Your task to perform on an android device: manage bookmarks in the chrome app Image 0: 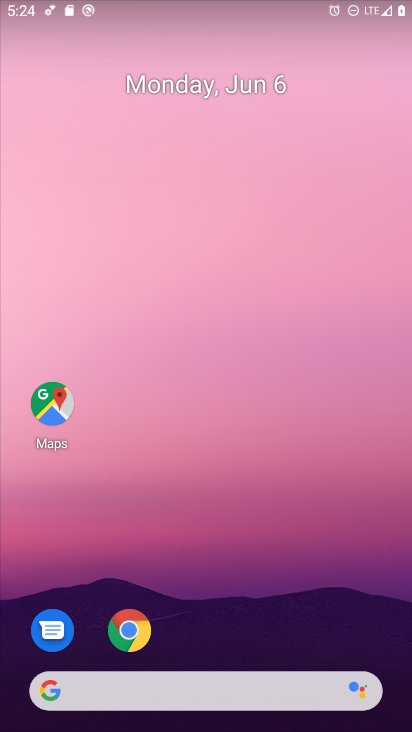
Step 0: click (127, 638)
Your task to perform on an android device: manage bookmarks in the chrome app Image 1: 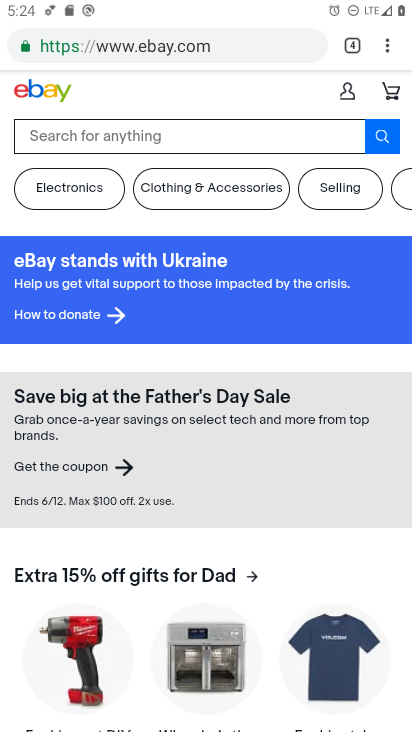
Step 1: click (393, 34)
Your task to perform on an android device: manage bookmarks in the chrome app Image 2: 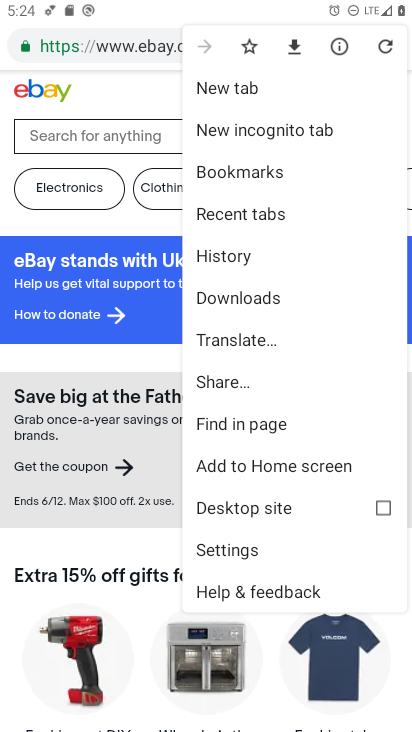
Step 2: click (239, 549)
Your task to perform on an android device: manage bookmarks in the chrome app Image 3: 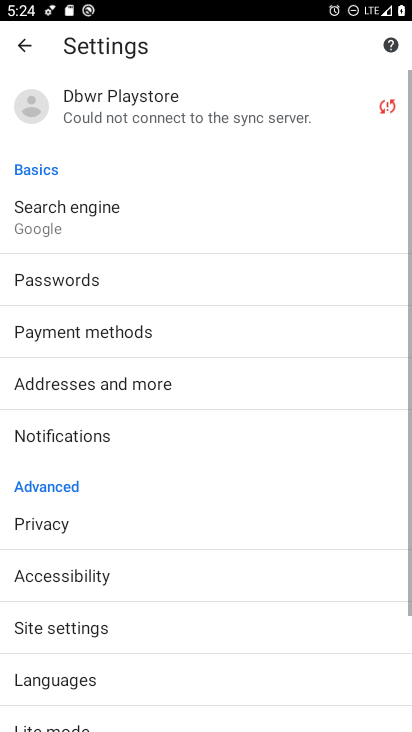
Step 3: drag from (227, 558) to (195, 100)
Your task to perform on an android device: manage bookmarks in the chrome app Image 4: 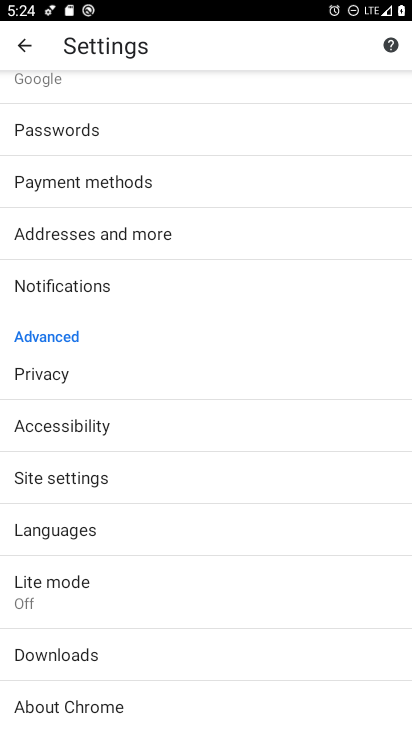
Step 4: click (21, 40)
Your task to perform on an android device: manage bookmarks in the chrome app Image 5: 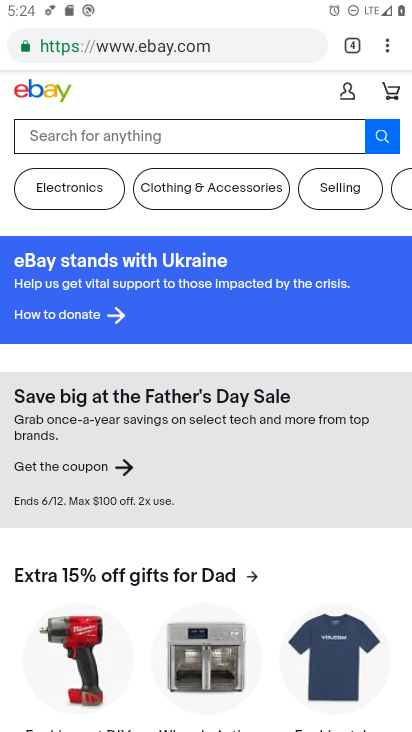
Step 5: click (379, 49)
Your task to perform on an android device: manage bookmarks in the chrome app Image 6: 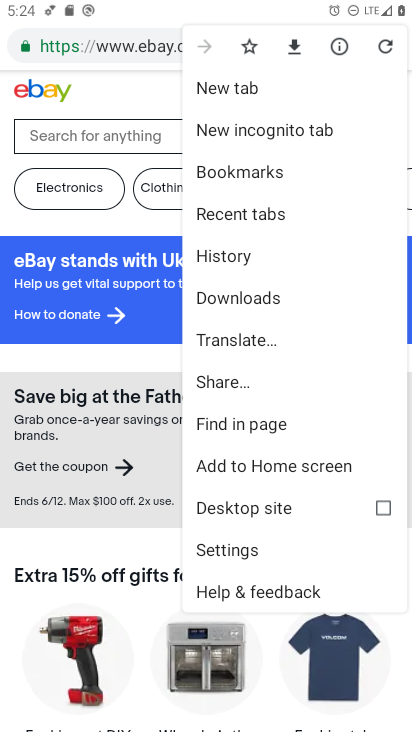
Step 6: click (278, 172)
Your task to perform on an android device: manage bookmarks in the chrome app Image 7: 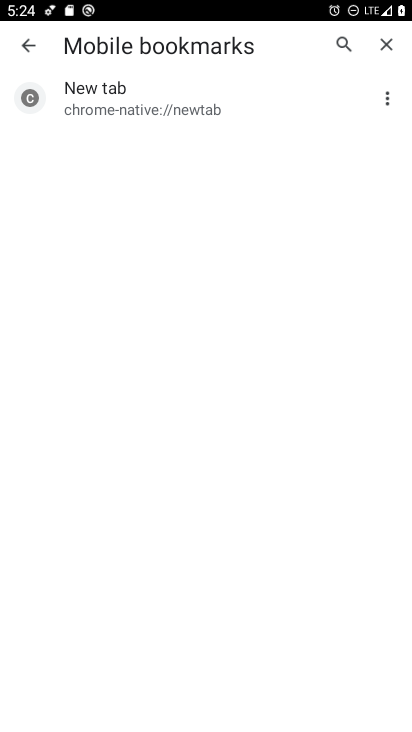
Step 7: click (387, 93)
Your task to perform on an android device: manage bookmarks in the chrome app Image 8: 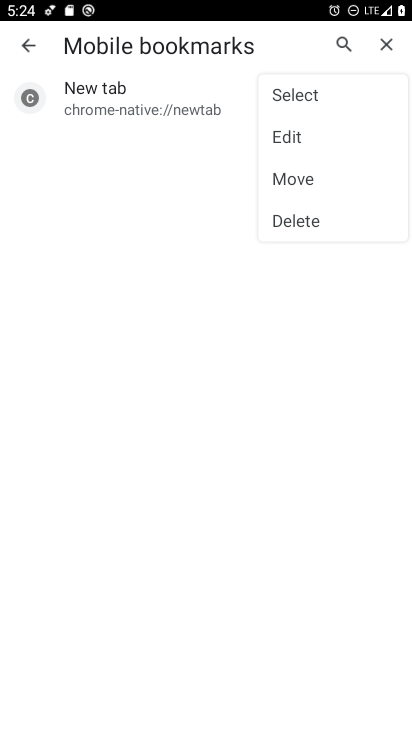
Step 8: click (325, 222)
Your task to perform on an android device: manage bookmarks in the chrome app Image 9: 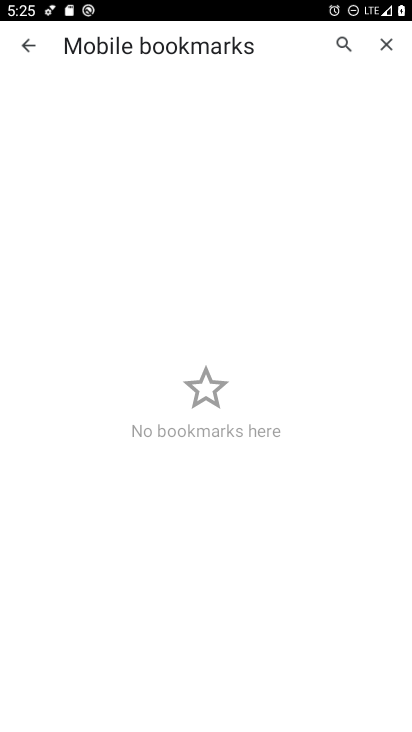
Step 9: task complete